Your task to perform on an android device: change the clock display to show seconds Image 0: 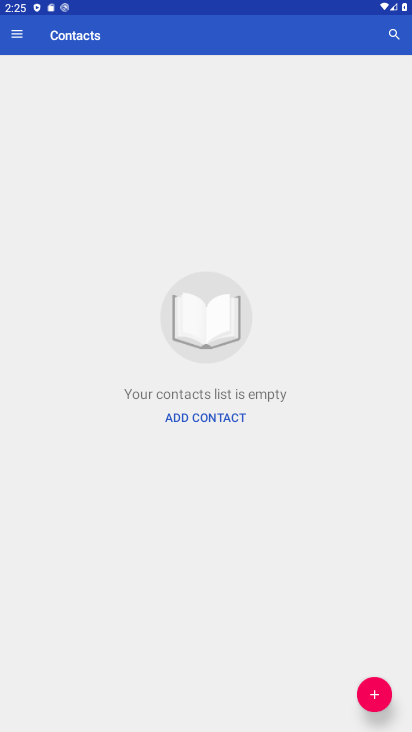
Step 0: press home button
Your task to perform on an android device: change the clock display to show seconds Image 1: 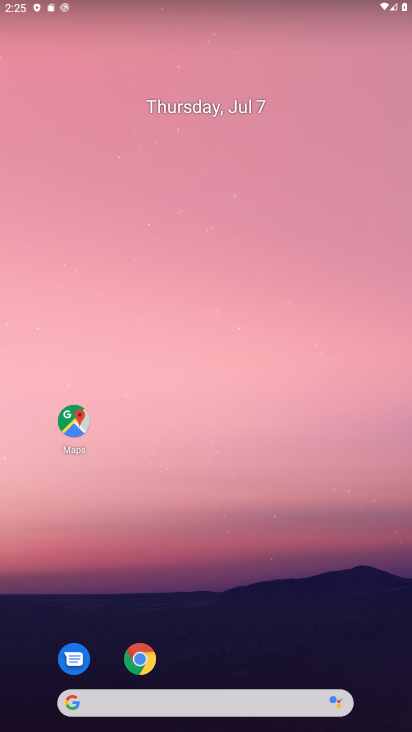
Step 1: drag from (226, 669) to (300, 40)
Your task to perform on an android device: change the clock display to show seconds Image 2: 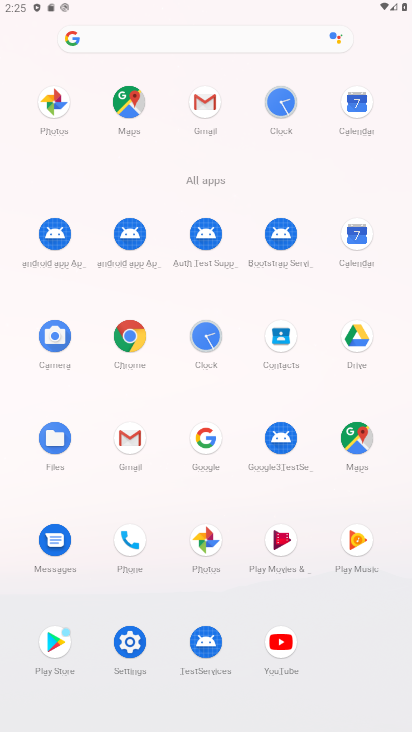
Step 2: click (201, 338)
Your task to perform on an android device: change the clock display to show seconds Image 3: 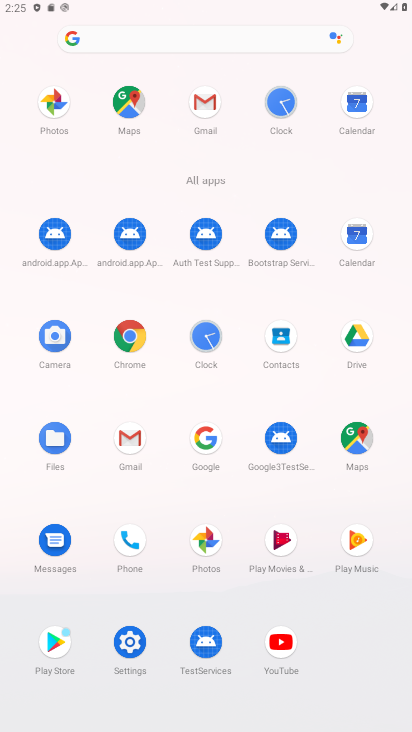
Step 3: click (204, 336)
Your task to perform on an android device: change the clock display to show seconds Image 4: 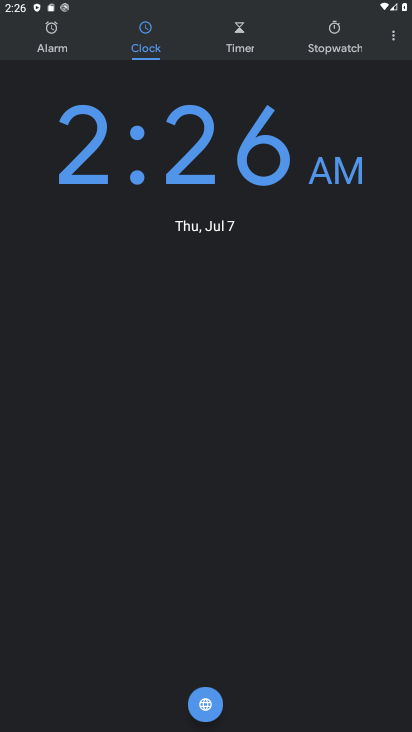
Step 4: click (386, 44)
Your task to perform on an android device: change the clock display to show seconds Image 5: 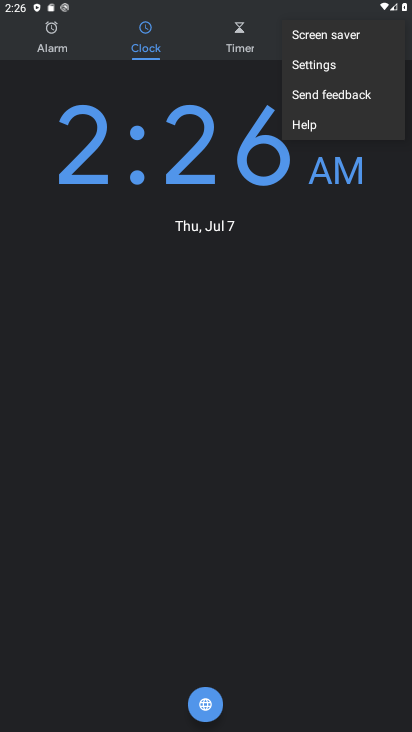
Step 5: click (345, 78)
Your task to perform on an android device: change the clock display to show seconds Image 6: 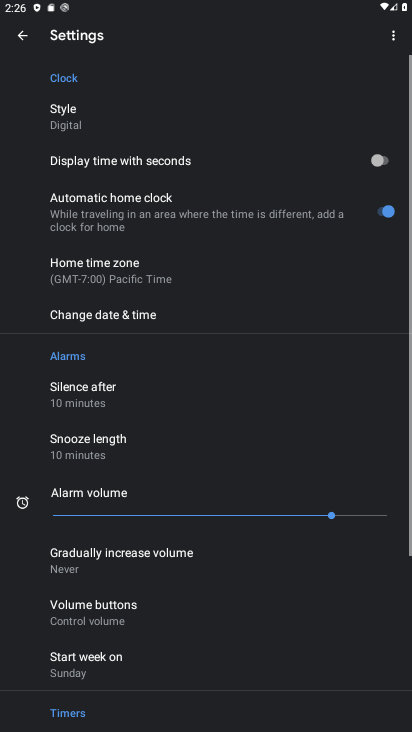
Step 6: click (96, 126)
Your task to perform on an android device: change the clock display to show seconds Image 7: 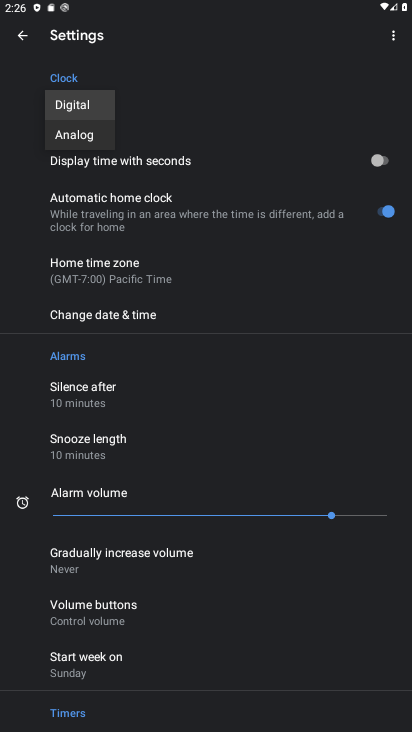
Step 7: click (377, 166)
Your task to perform on an android device: change the clock display to show seconds Image 8: 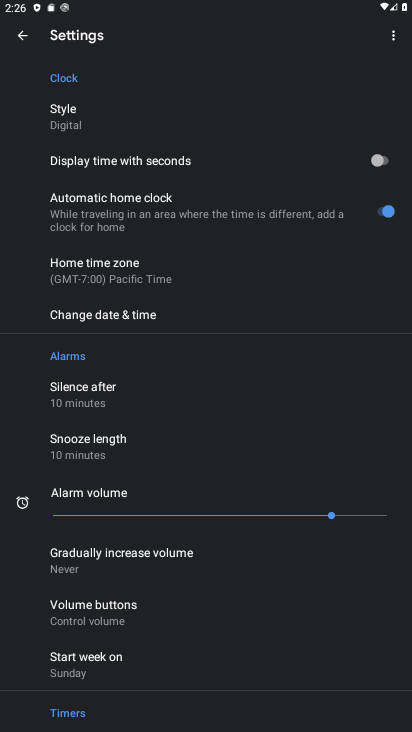
Step 8: click (389, 162)
Your task to perform on an android device: change the clock display to show seconds Image 9: 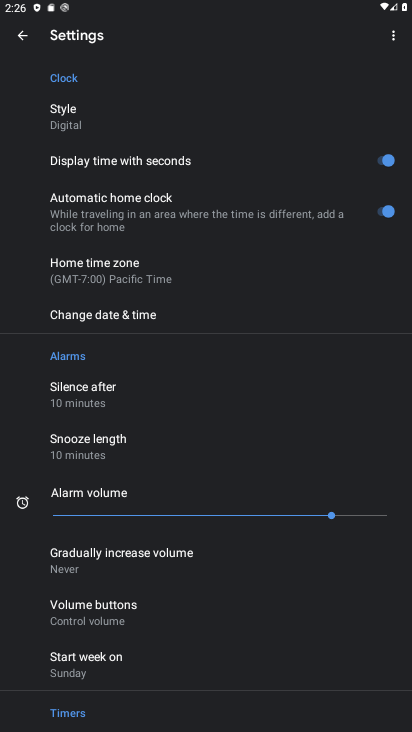
Step 9: task complete